Your task to perform on an android device: Open Google Image 0: 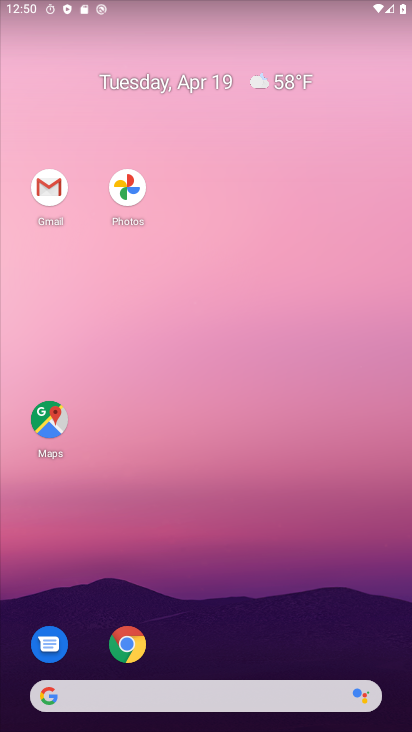
Step 0: drag from (241, 515) to (266, 183)
Your task to perform on an android device: Open Google Image 1: 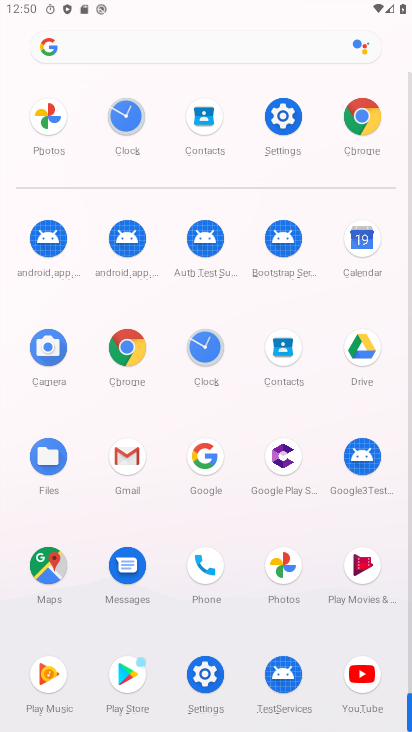
Step 1: click (210, 456)
Your task to perform on an android device: Open Google Image 2: 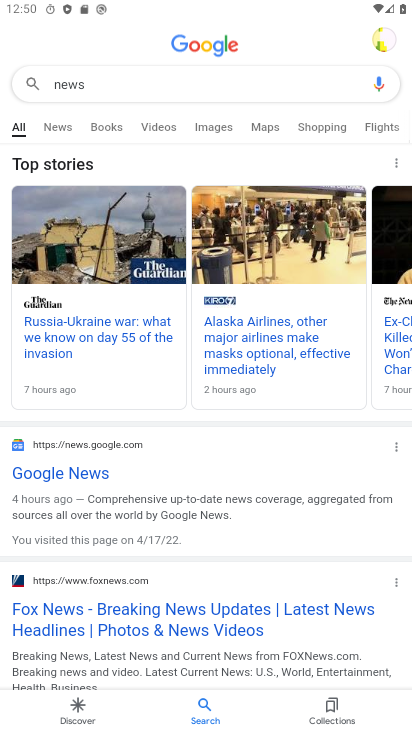
Step 2: task complete